Your task to perform on an android device: turn off javascript in the chrome app Image 0: 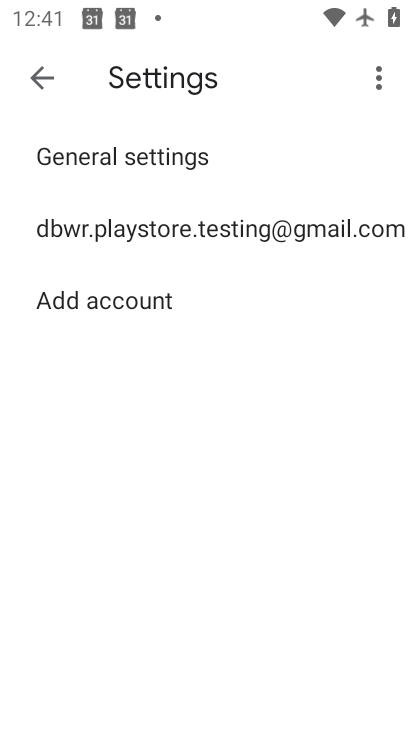
Step 0: press home button
Your task to perform on an android device: turn off javascript in the chrome app Image 1: 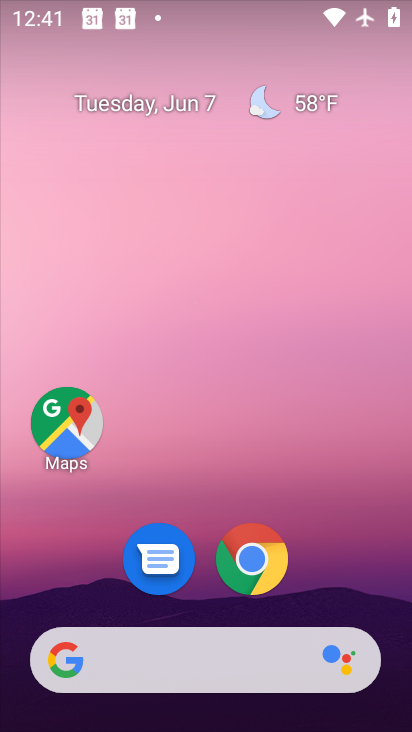
Step 1: click (255, 562)
Your task to perform on an android device: turn off javascript in the chrome app Image 2: 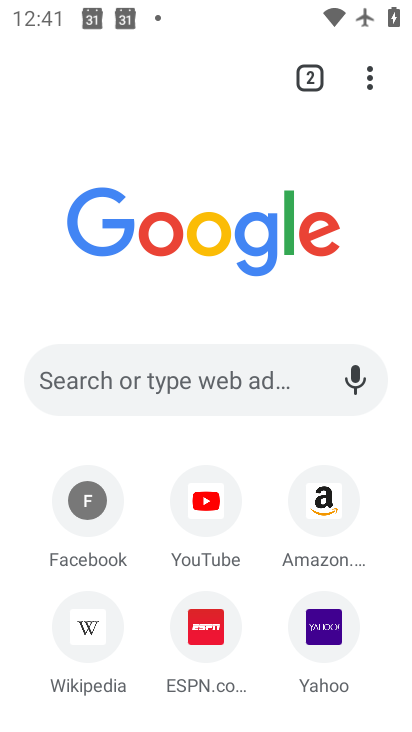
Step 2: click (370, 86)
Your task to perform on an android device: turn off javascript in the chrome app Image 3: 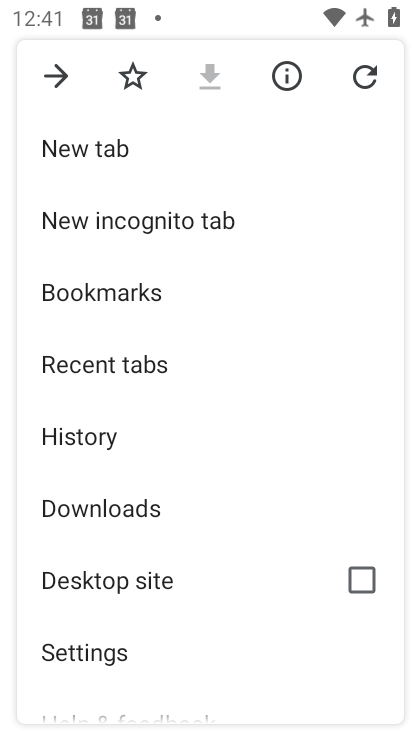
Step 3: click (109, 647)
Your task to perform on an android device: turn off javascript in the chrome app Image 4: 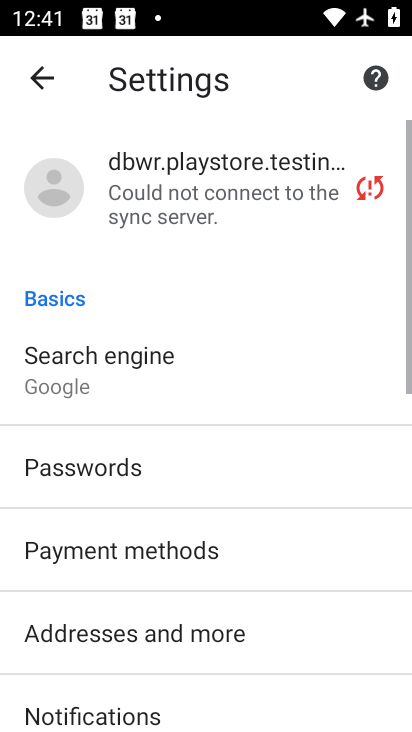
Step 4: drag from (289, 657) to (277, 142)
Your task to perform on an android device: turn off javascript in the chrome app Image 5: 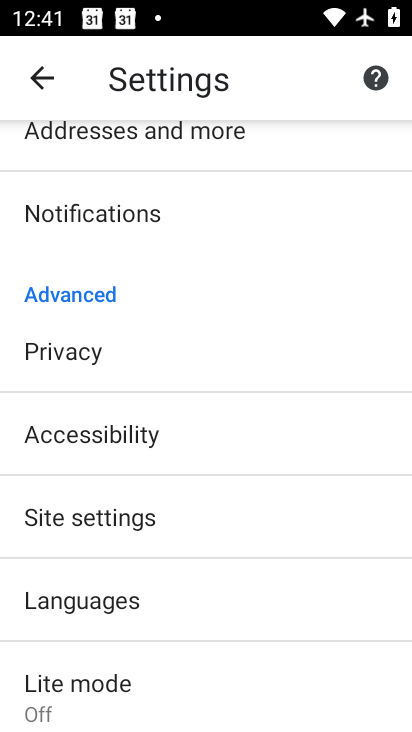
Step 5: click (90, 524)
Your task to perform on an android device: turn off javascript in the chrome app Image 6: 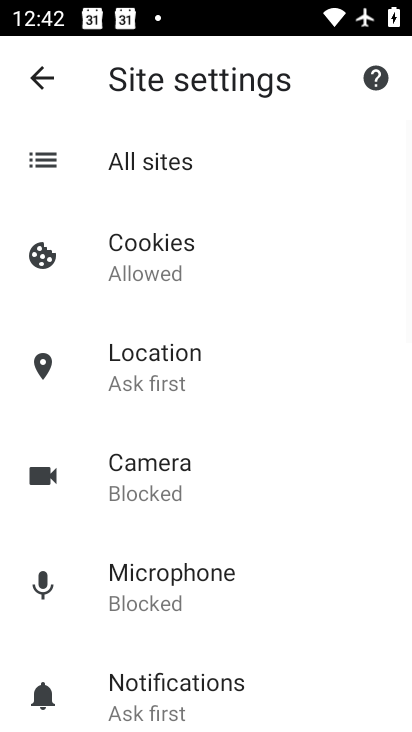
Step 6: drag from (267, 687) to (257, 154)
Your task to perform on an android device: turn off javascript in the chrome app Image 7: 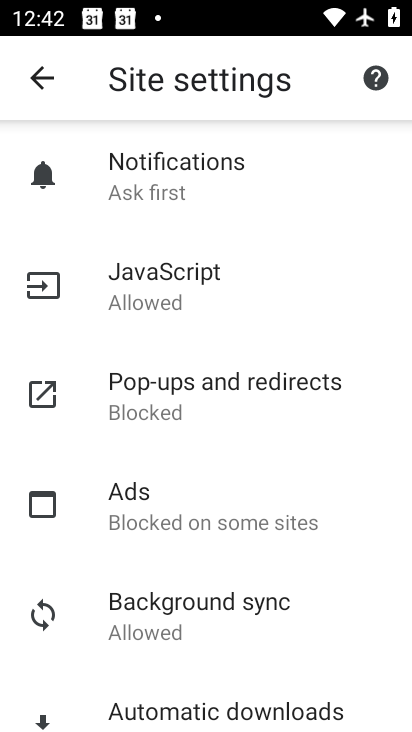
Step 7: click (158, 289)
Your task to perform on an android device: turn off javascript in the chrome app Image 8: 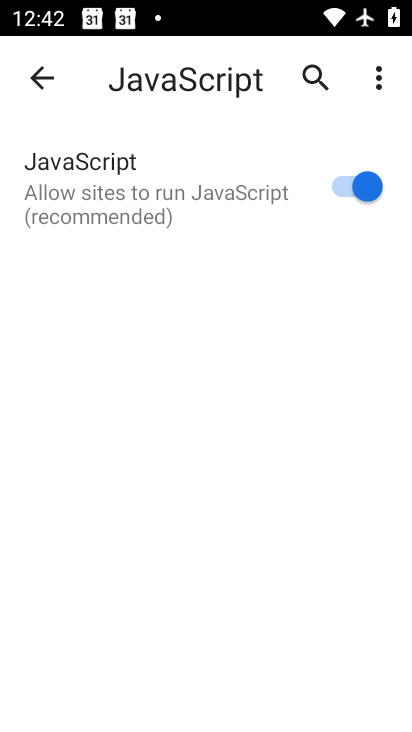
Step 8: click (341, 182)
Your task to perform on an android device: turn off javascript in the chrome app Image 9: 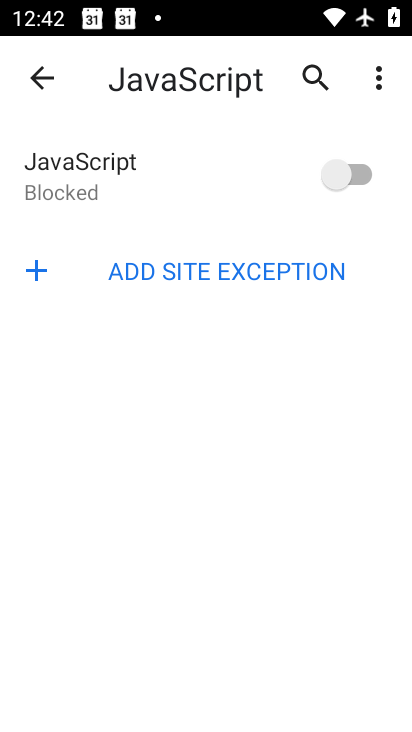
Step 9: task complete